Your task to perform on an android device: read, delete, or share a saved page in the chrome app Image 0: 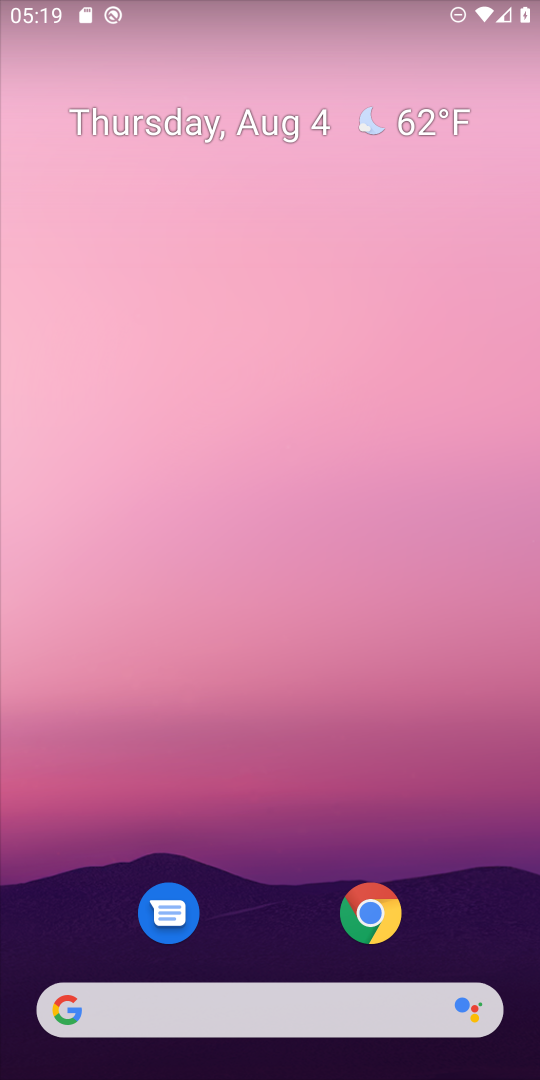
Step 0: drag from (409, 1002) to (529, 802)
Your task to perform on an android device: read, delete, or share a saved page in the chrome app Image 1: 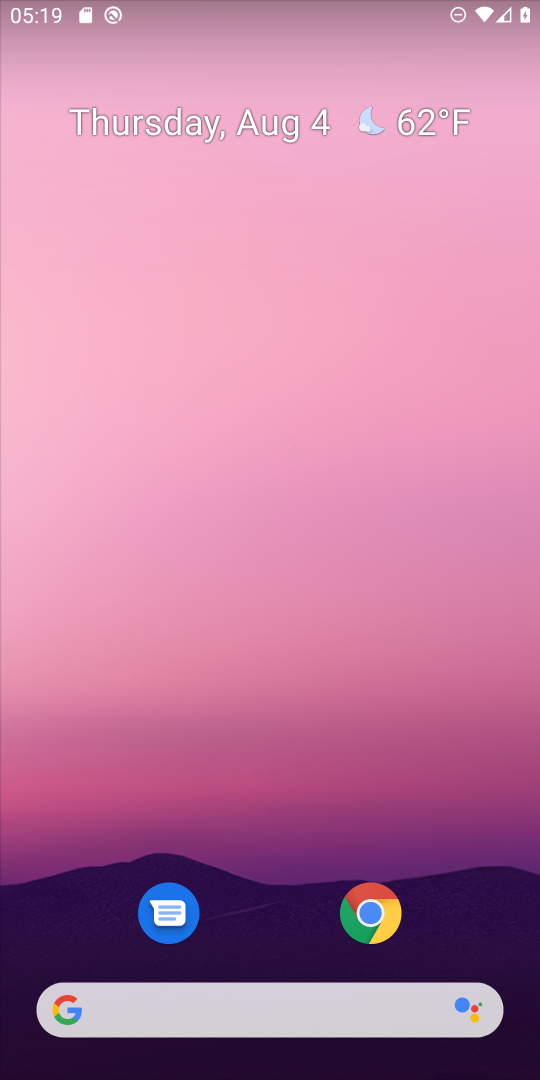
Step 1: drag from (305, 988) to (460, 103)
Your task to perform on an android device: read, delete, or share a saved page in the chrome app Image 2: 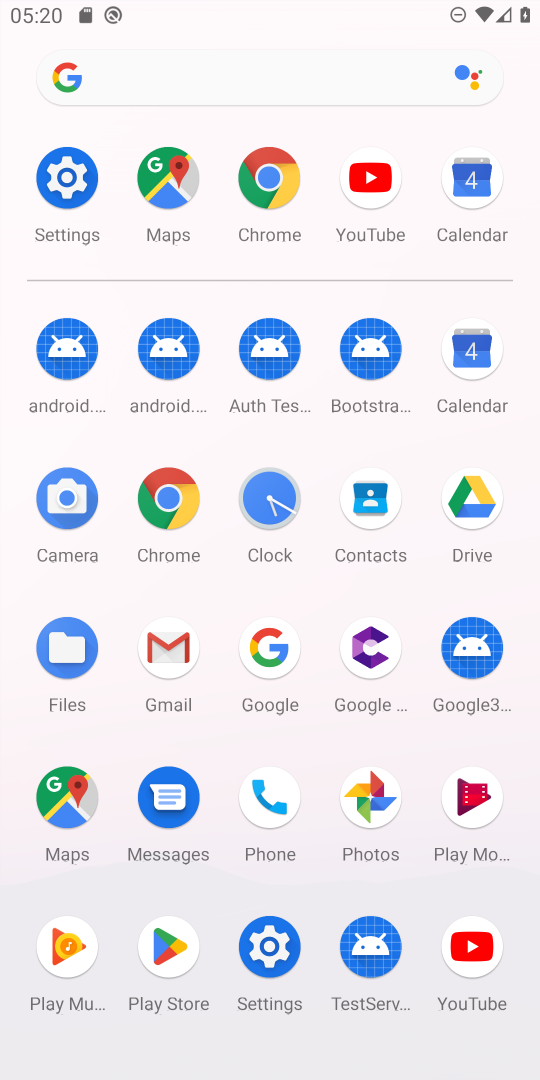
Step 2: click (188, 479)
Your task to perform on an android device: read, delete, or share a saved page in the chrome app Image 3: 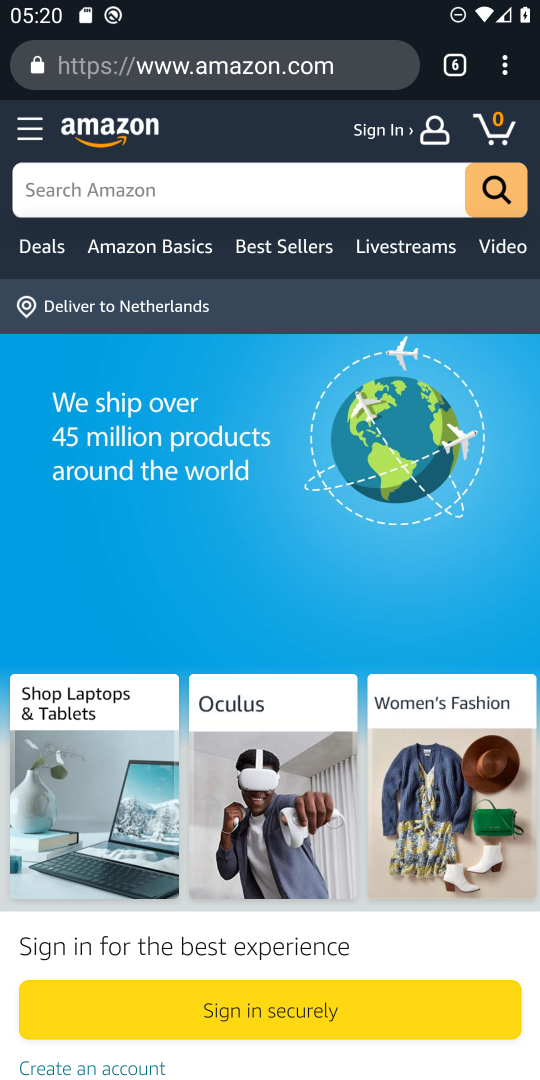
Step 3: task complete